Your task to perform on an android device: delete browsing data in the chrome app Image 0: 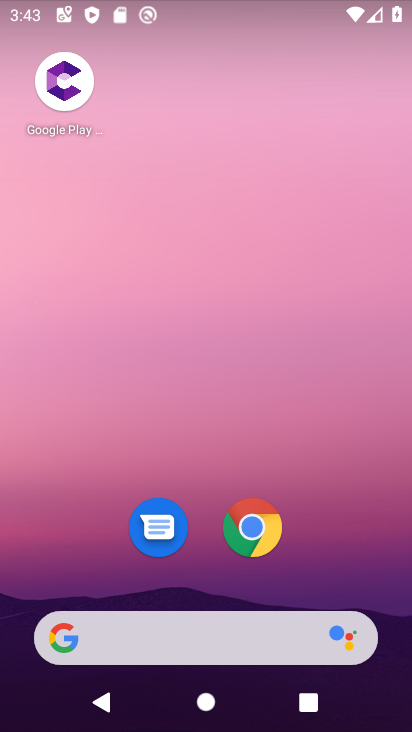
Step 0: click (253, 539)
Your task to perform on an android device: delete browsing data in the chrome app Image 1: 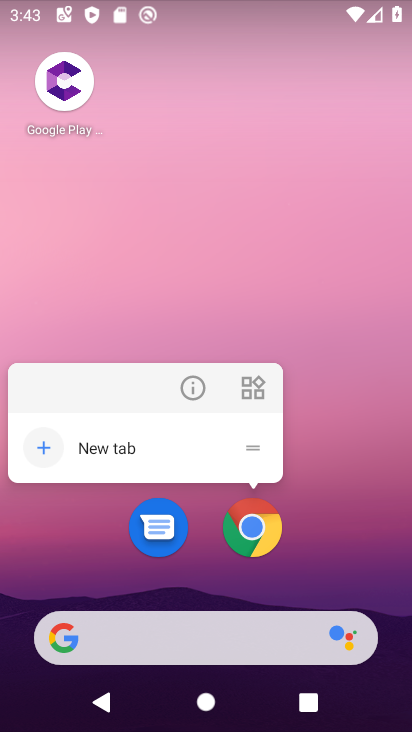
Step 1: click (247, 542)
Your task to perform on an android device: delete browsing data in the chrome app Image 2: 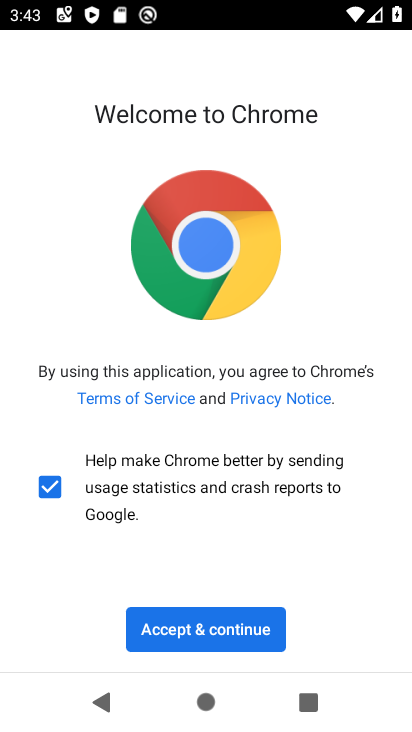
Step 2: click (253, 618)
Your task to perform on an android device: delete browsing data in the chrome app Image 3: 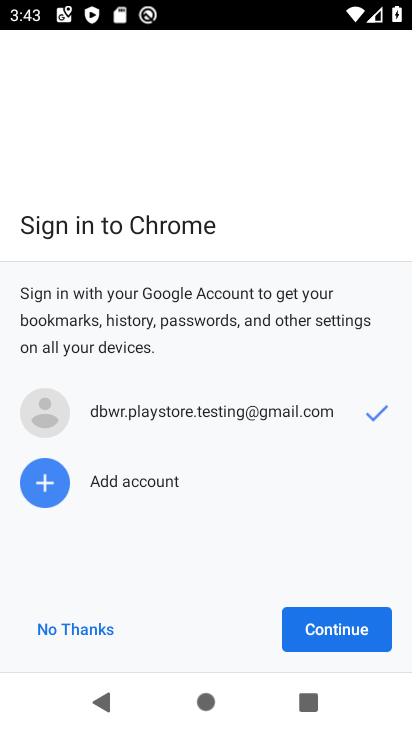
Step 3: click (348, 636)
Your task to perform on an android device: delete browsing data in the chrome app Image 4: 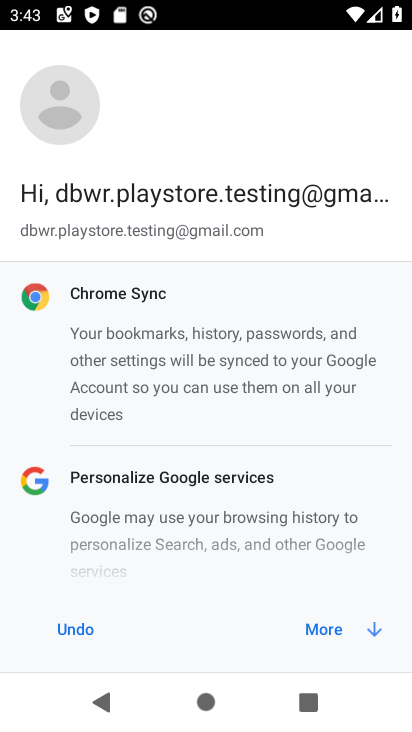
Step 4: click (348, 623)
Your task to perform on an android device: delete browsing data in the chrome app Image 5: 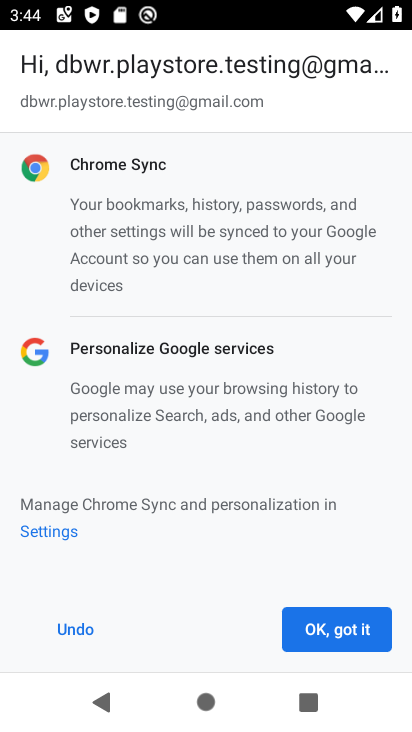
Step 5: click (366, 631)
Your task to perform on an android device: delete browsing data in the chrome app Image 6: 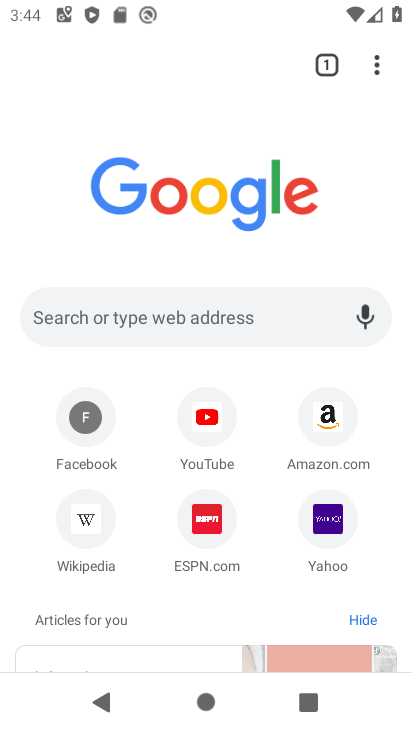
Step 6: click (362, 65)
Your task to perform on an android device: delete browsing data in the chrome app Image 7: 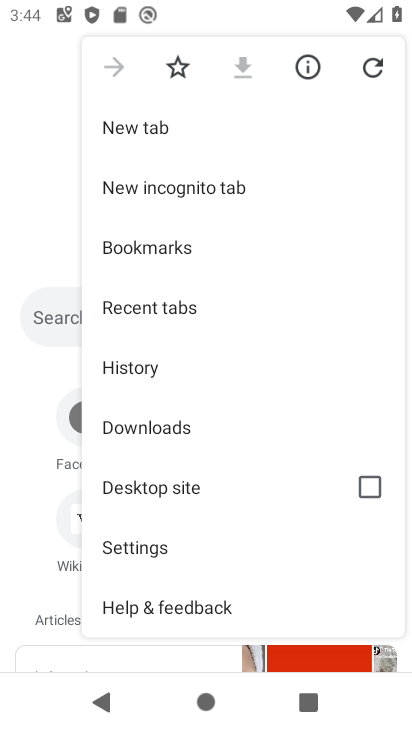
Step 7: click (152, 556)
Your task to perform on an android device: delete browsing data in the chrome app Image 8: 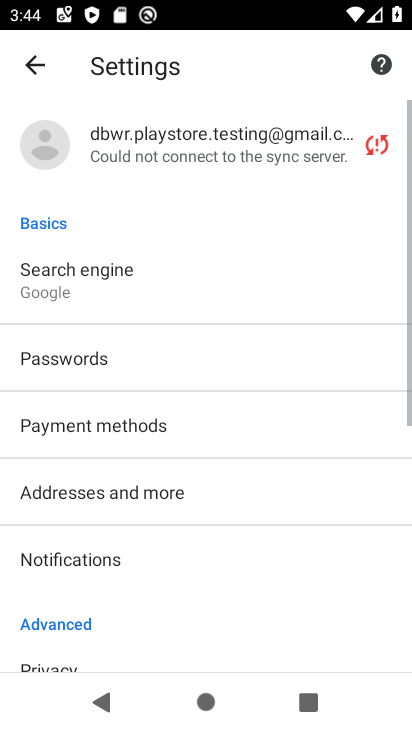
Step 8: drag from (177, 575) to (131, 58)
Your task to perform on an android device: delete browsing data in the chrome app Image 9: 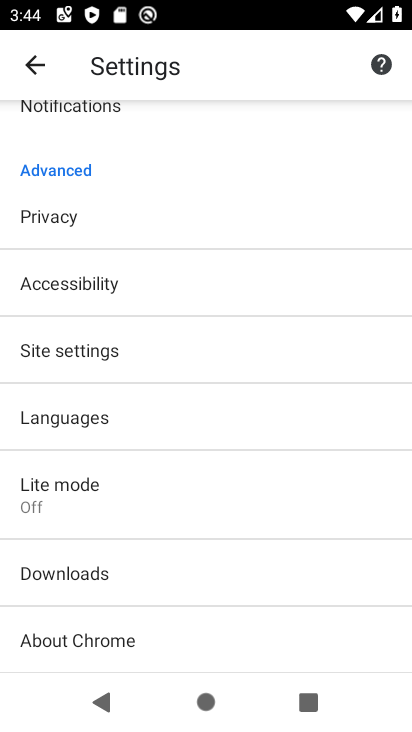
Step 9: click (51, 231)
Your task to perform on an android device: delete browsing data in the chrome app Image 10: 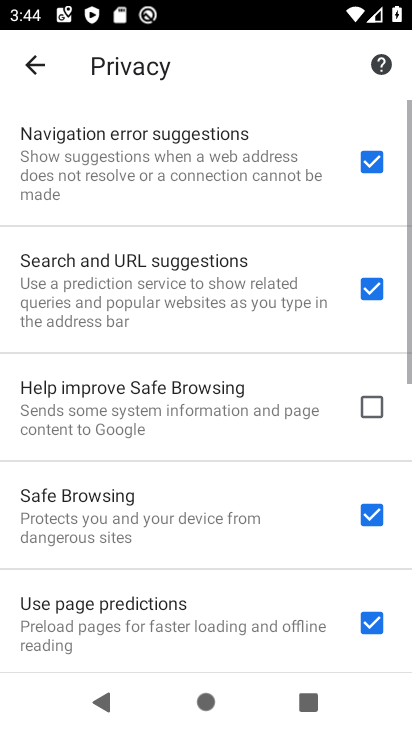
Step 10: drag from (202, 516) to (146, 25)
Your task to perform on an android device: delete browsing data in the chrome app Image 11: 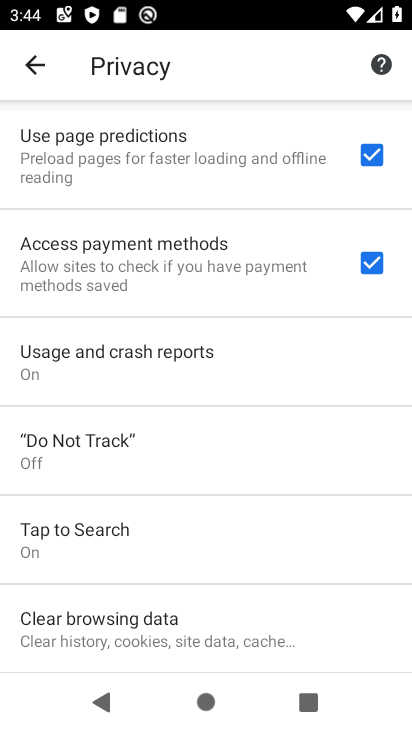
Step 11: click (191, 654)
Your task to perform on an android device: delete browsing data in the chrome app Image 12: 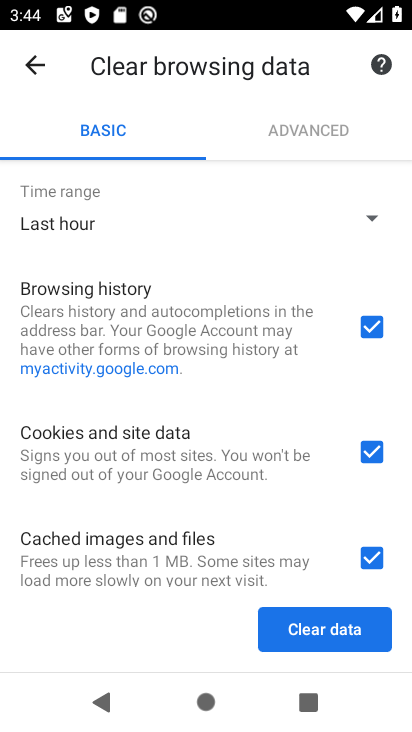
Step 12: click (314, 630)
Your task to perform on an android device: delete browsing data in the chrome app Image 13: 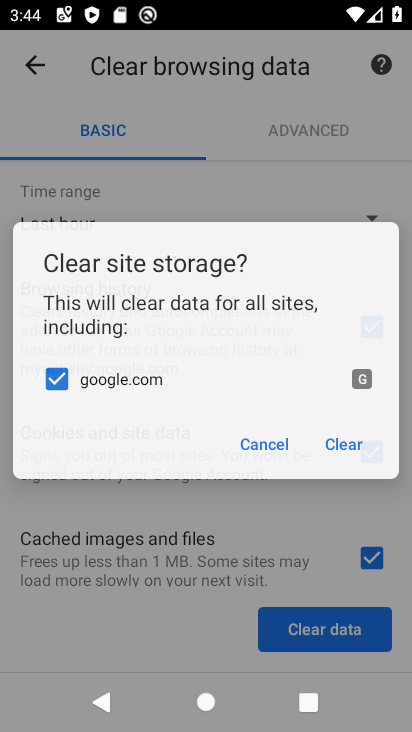
Step 13: task complete